Your task to perform on an android device: Open Wikipedia Image 0: 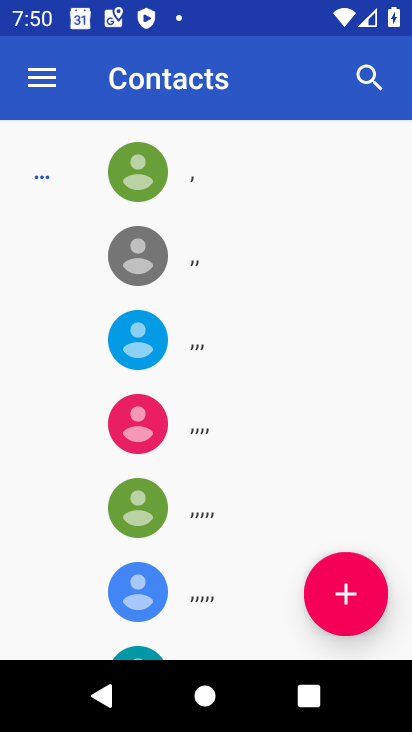
Step 0: press home button
Your task to perform on an android device: Open Wikipedia Image 1: 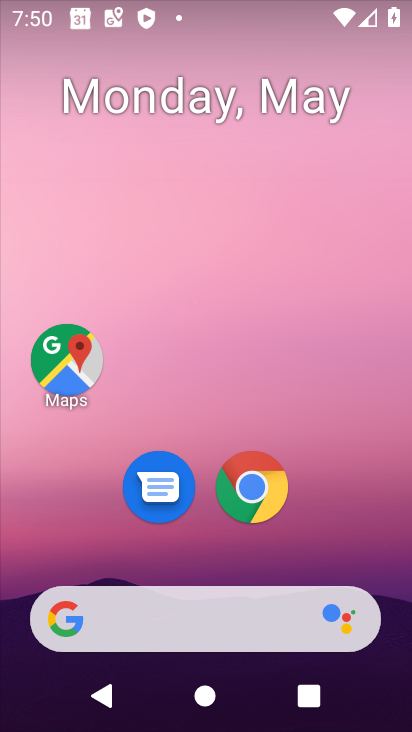
Step 1: drag from (372, 559) to (375, 185)
Your task to perform on an android device: Open Wikipedia Image 2: 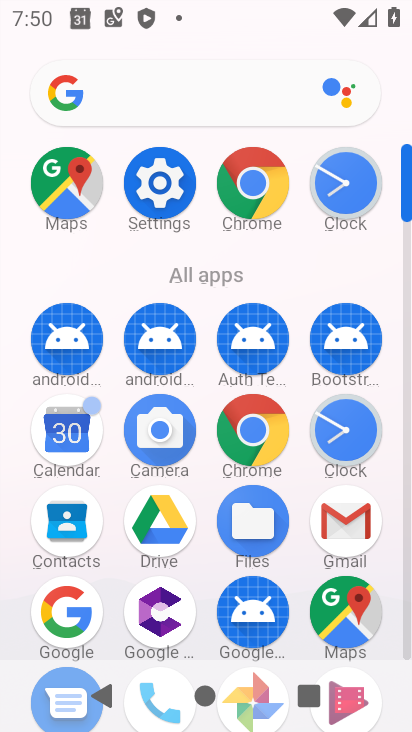
Step 2: click (266, 445)
Your task to perform on an android device: Open Wikipedia Image 3: 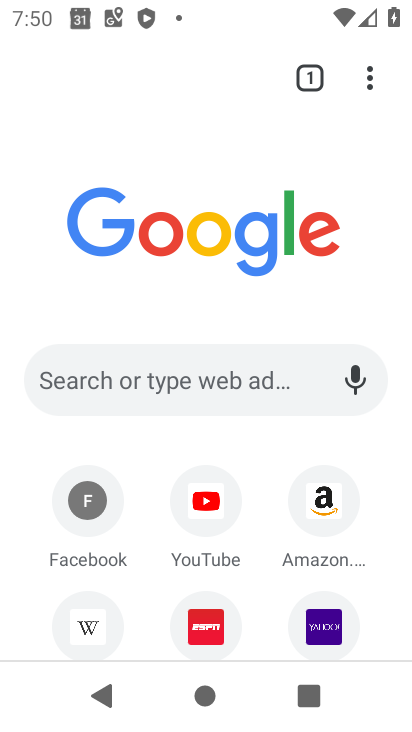
Step 3: click (240, 371)
Your task to perform on an android device: Open Wikipedia Image 4: 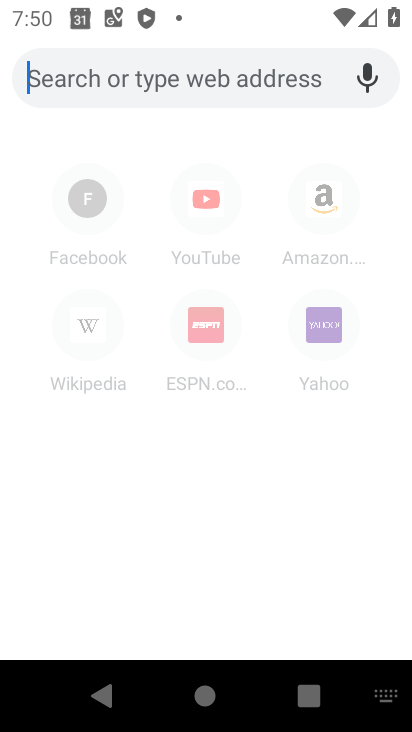
Step 4: type "wikipedia"
Your task to perform on an android device: Open Wikipedia Image 5: 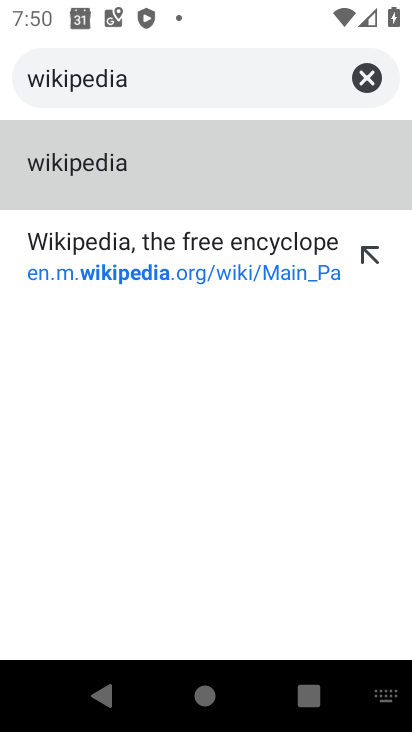
Step 5: click (218, 184)
Your task to perform on an android device: Open Wikipedia Image 6: 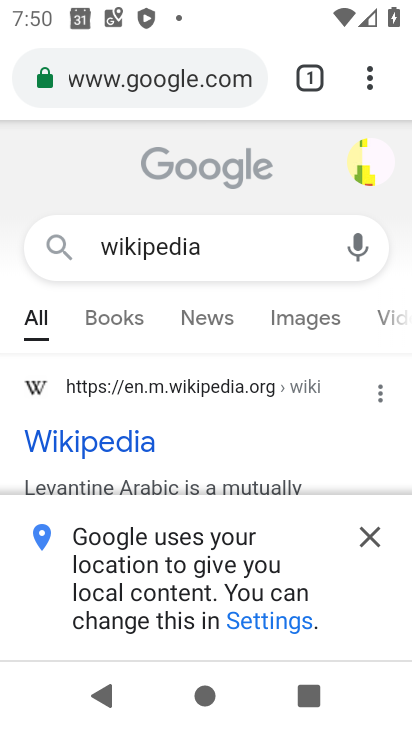
Step 6: task complete